Your task to perform on an android device: set an alarm Image 0: 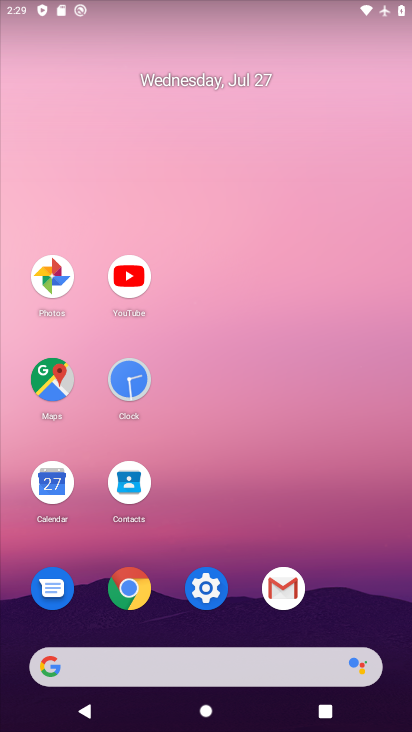
Step 0: click (129, 379)
Your task to perform on an android device: set an alarm Image 1: 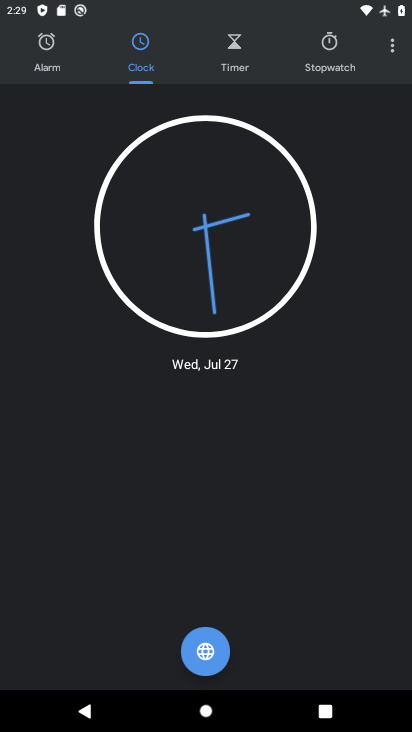
Step 1: click (47, 60)
Your task to perform on an android device: set an alarm Image 2: 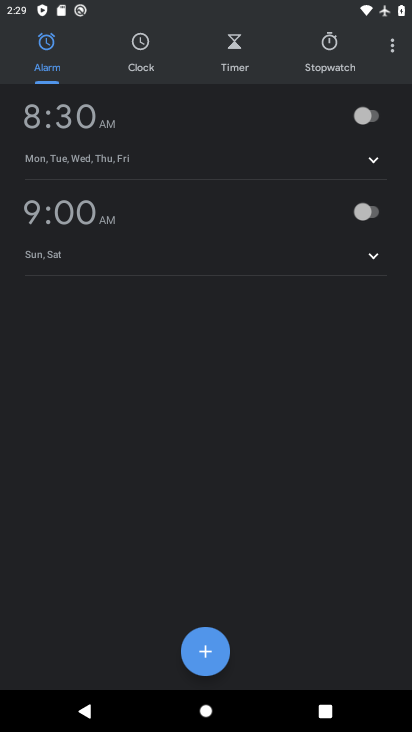
Step 2: click (207, 649)
Your task to perform on an android device: set an alarm Image 3: 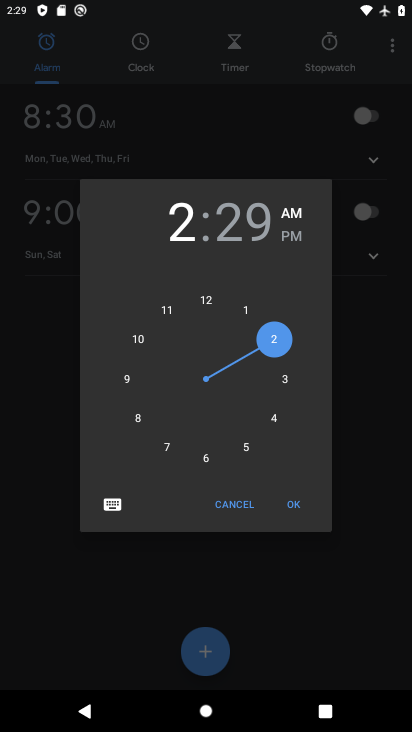
Step 3: click (288, 505)
Your task to perform on an android device: set an alarm Image 4: 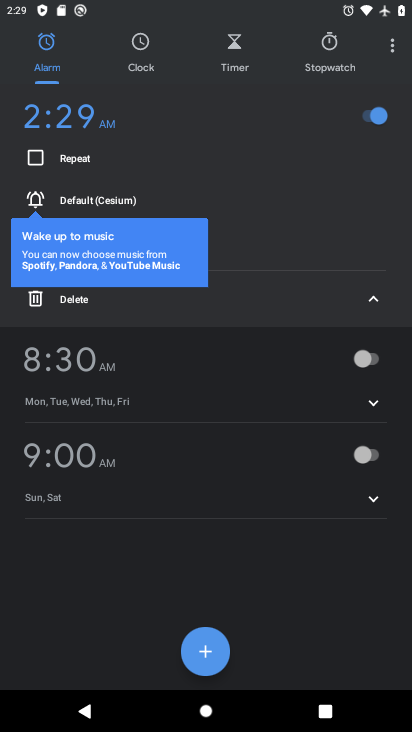
Step 4: task complete